Your task to perform on an android device: Open Yahoo.com Image 0: 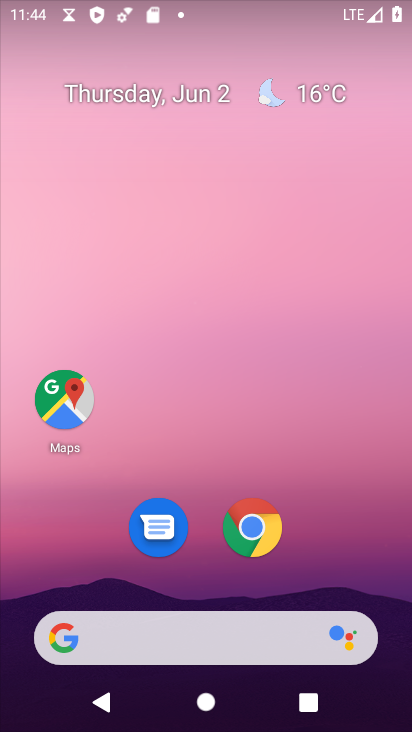
Step 0: click (236, 553)
Your task to perform on an android device: Open Yahoo.com Image 1: 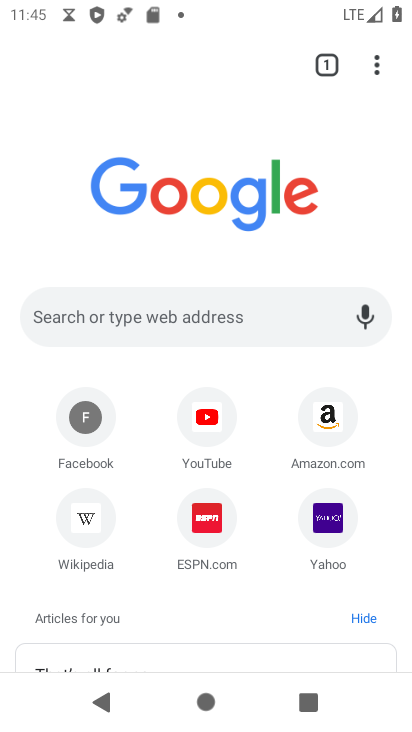
Step 1: click (325, 507)
Your task to perform on an android device: Open Yahoo.com Image 2: 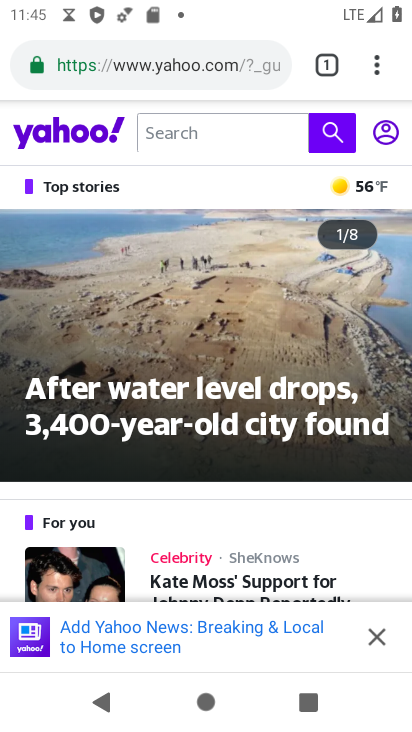
Step 2: task complete